Your task to perform on an android device: change the clock display to digital Image 0: 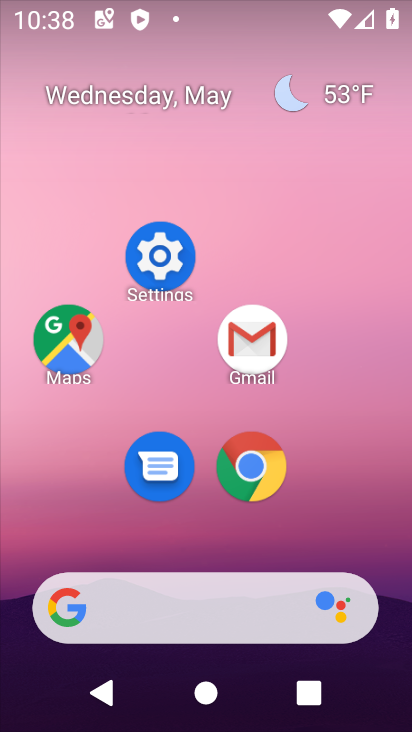
Step 0: drag from (175, 547) to (222, 203)
Your task to perform on an android device: change the clock display to digital Image 1: 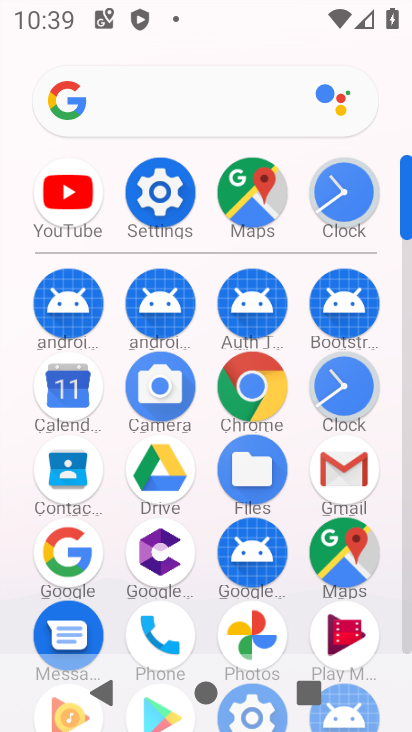
Step 1: click (342, 364)
Your task to perform on an android device: change the clock display to digital Image 2: 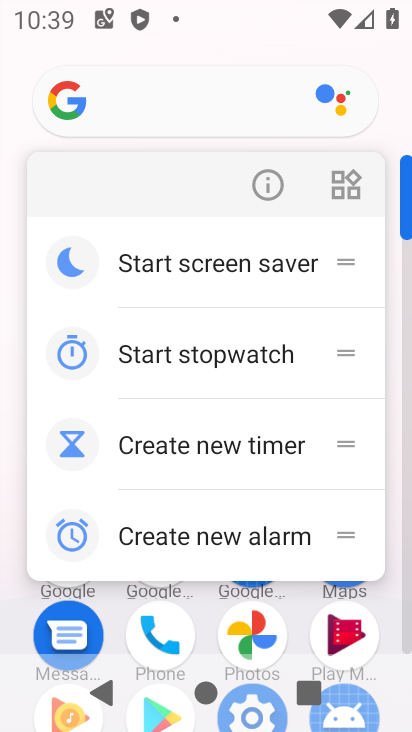
Step 2: click (258, 192)
Your task to perform on an android device: change the clock display to digital Image 3: 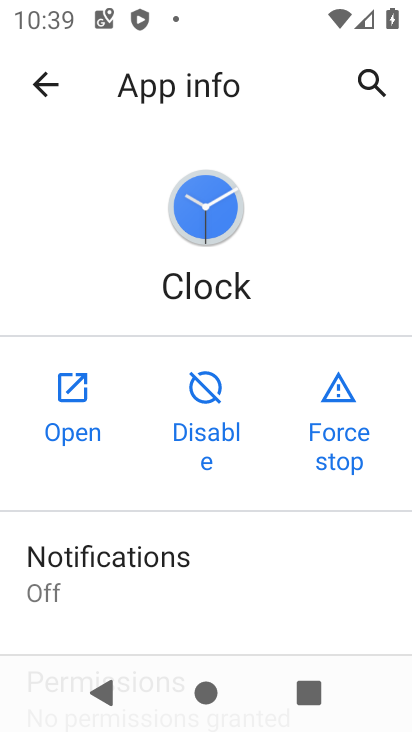
Step 3: click (80, 406)
Your task to perform on an android device: change the clock display to digital Image 4: 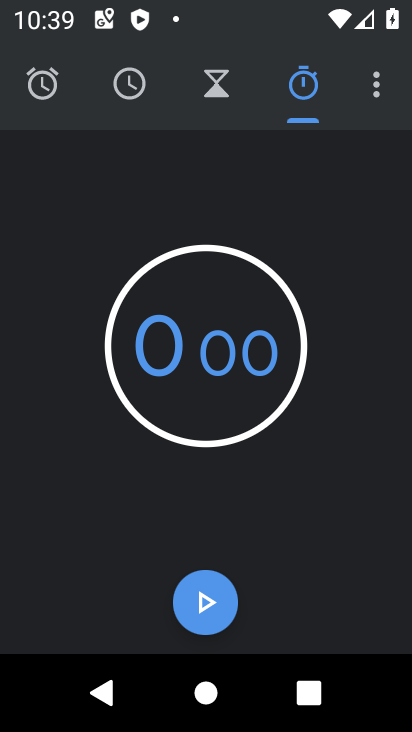
Step 4: click (379, 79)
Your task to perform on an android device: change the clock display to digital Image 5: 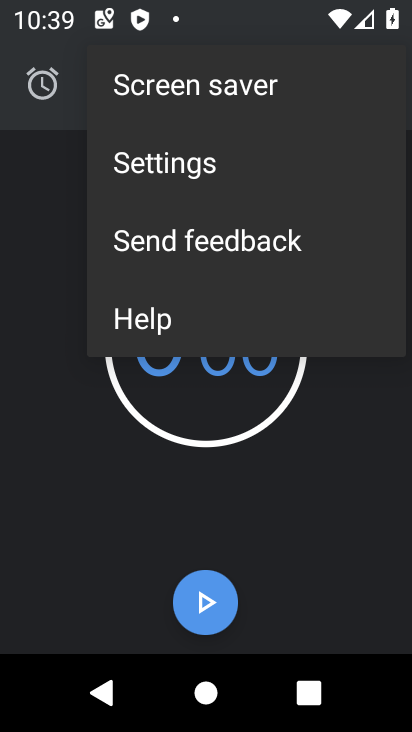
Step 5: click (212, 165)
Your task to perform on an android device: change the clock display to digital Image 6: 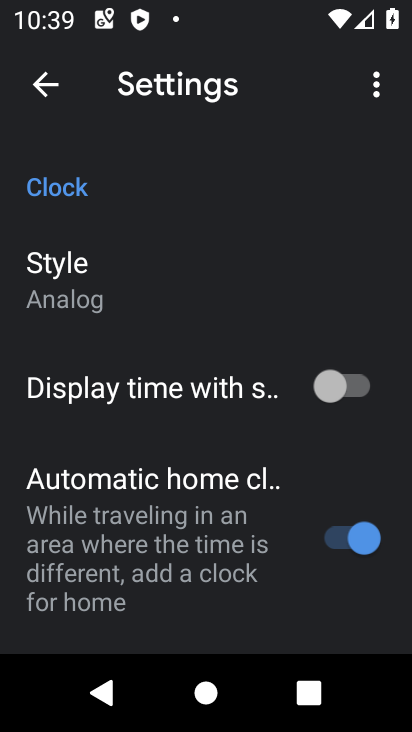
Step 6: click (145, 279)
Your task to perform on an android device: change the clock display to digital Image 7: 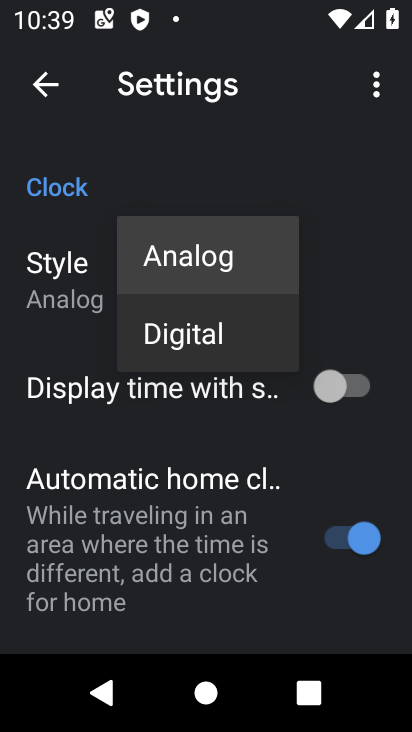
Step 7: click (231, 320)
Your task to perform on an android device: change the clock display to digital Image 8: 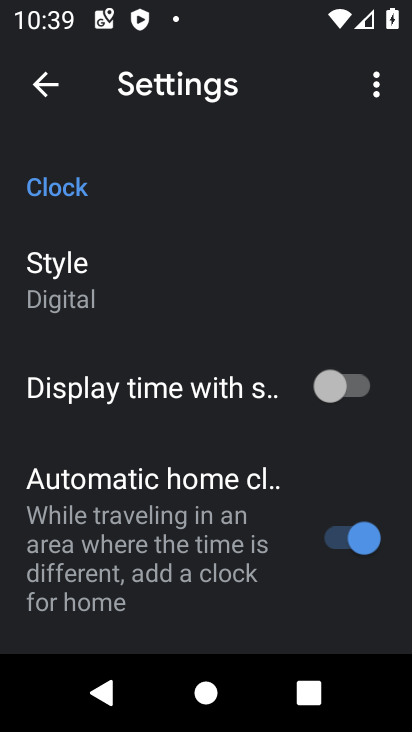
Step 8: task complete